Your task to perform on an android device: toggle sleep mode Image 0: 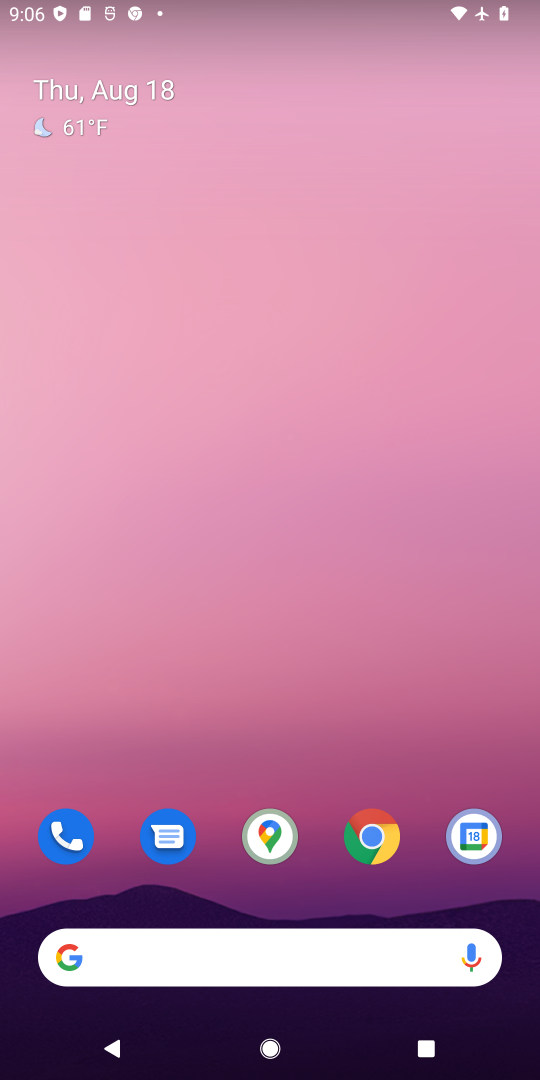
Step 0: drag from (307, 738) to (319, 177)
Your task to perform on an android device: toggle sleep mode Image 1: 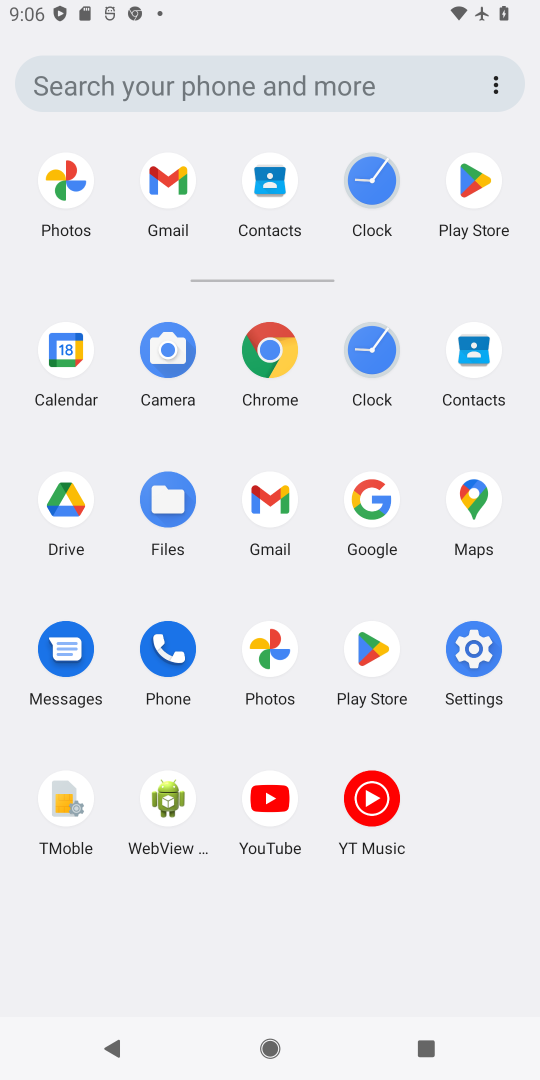
Step 1: click (488, 653)
Your task to perform on an android device: toggle sleep mode Image 2: 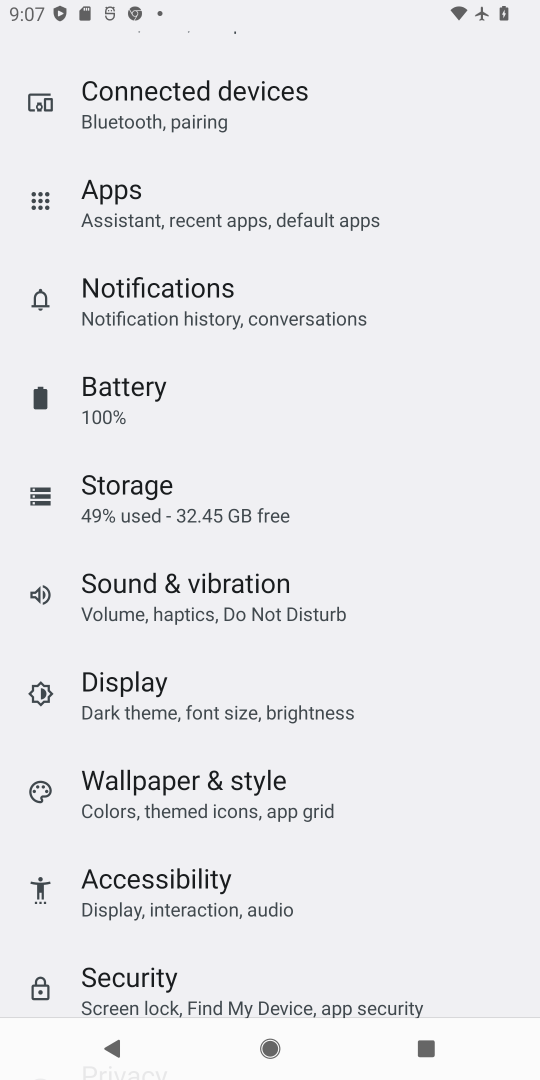
Step 2: click (117, 684)
Your task to perform on an android device: toggle sleep mode Image 3: 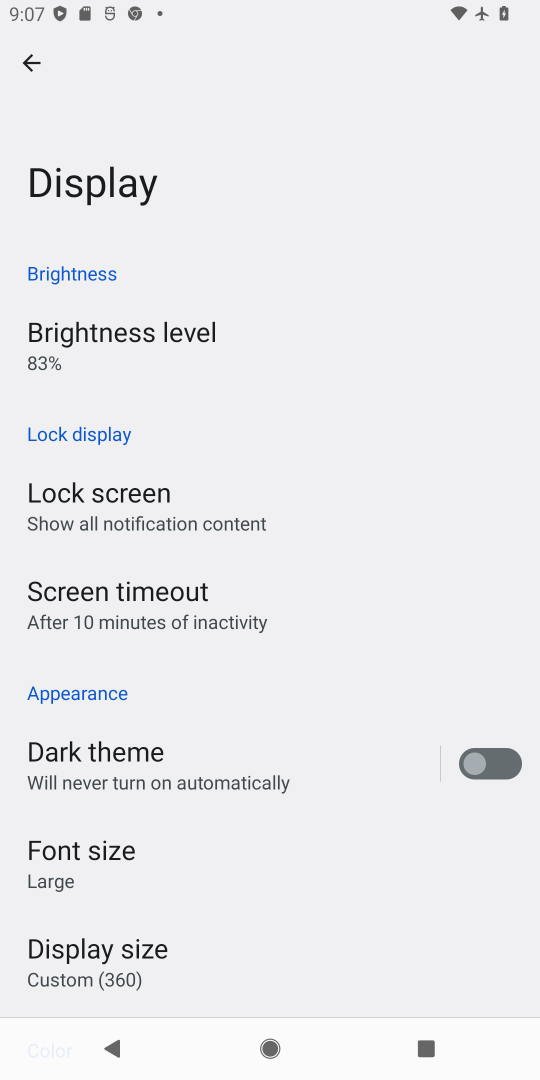
Step 3: click (174, 608)
Your task to perform on an android device: toggle sleep mode Image 4: 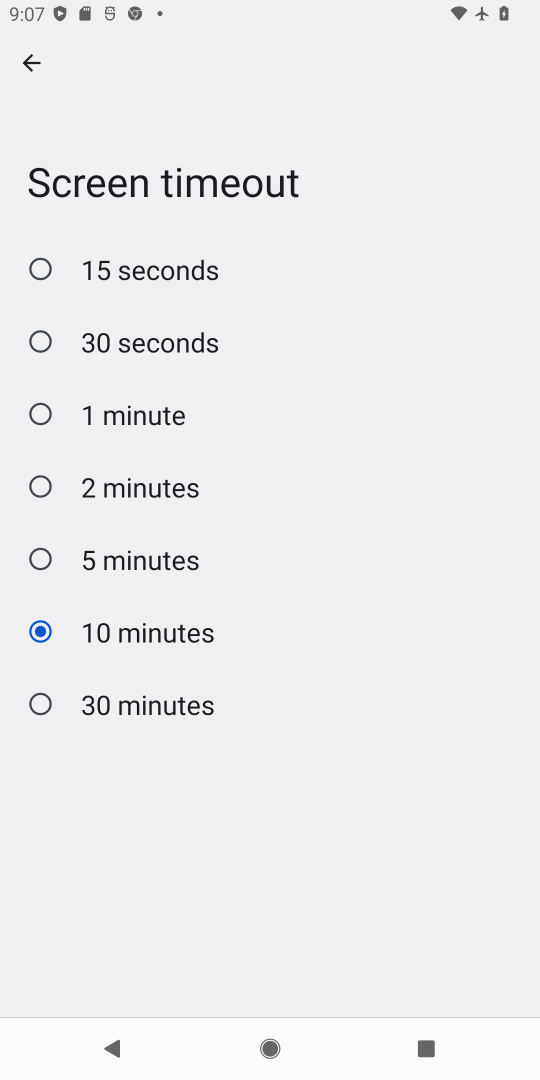
Step 4: click (160, 707)
Your task to perform on an android device: toggle sleep mode Image 5: 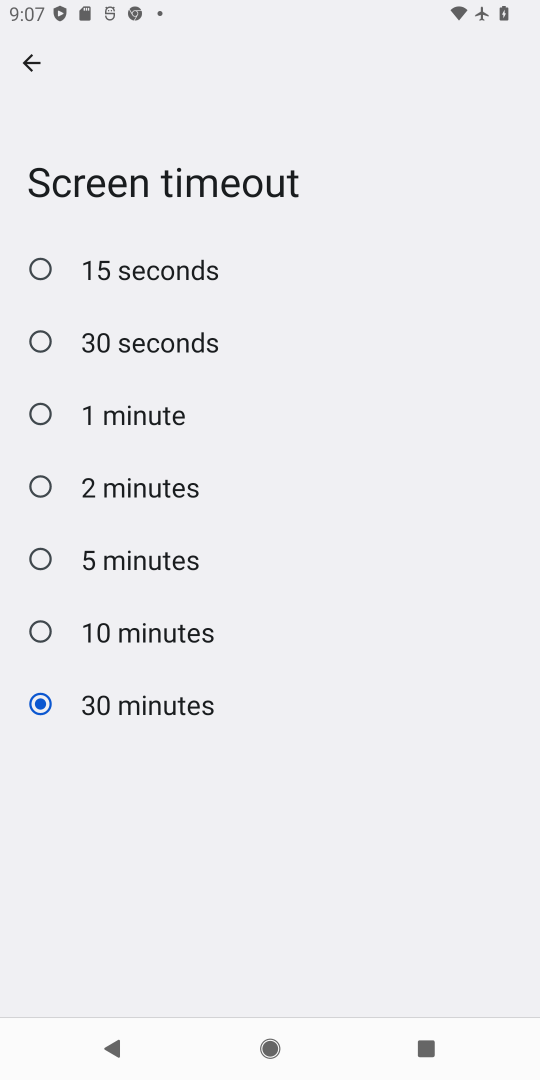
Step 5: task complete